Your task to perform on an android device: Show me popular videos on Youtube Image 0: 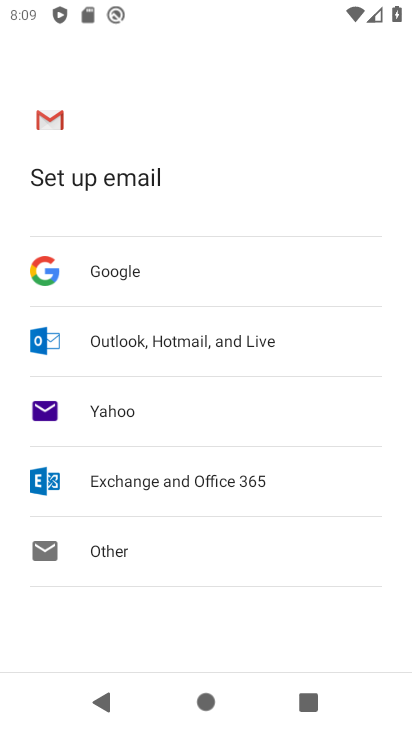
Step 0: press home button
Your task to perform on an android device: Show me popular videos on Youtube Image 1: 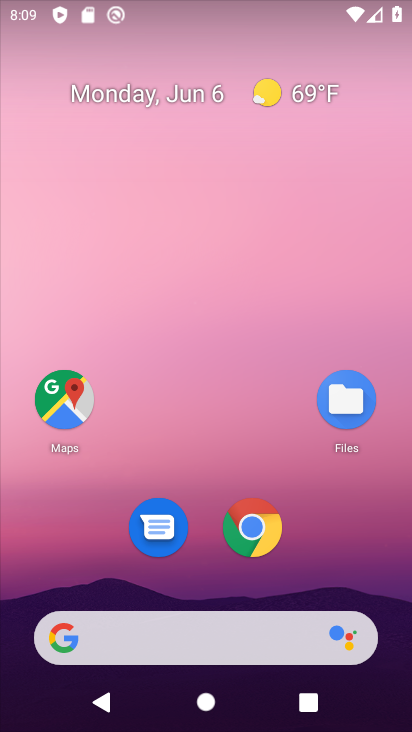
Step 1: drag from (220, 573) to (209, 26)
Your task to perform on an android device: Show me popular videos on Youtube Image 2: 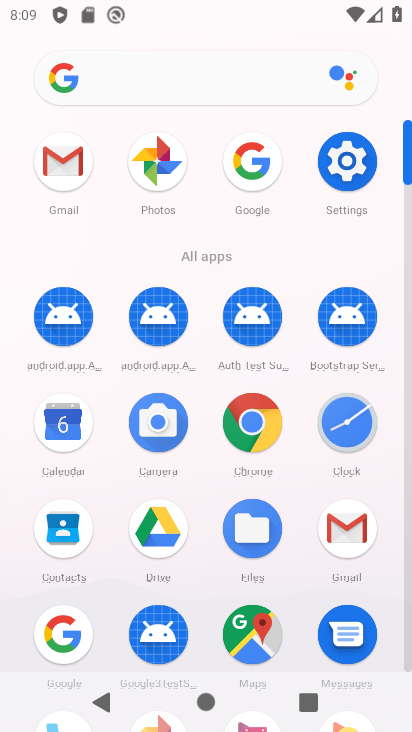
Step 2: drag from (203, 580) to (224, 104)
Your task to perform on an android device: Show me popular videos on Youtube Image 3: 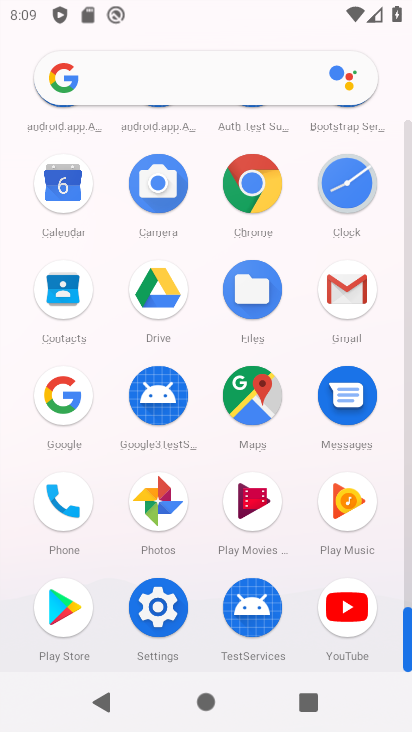
Step 3: click (346, 615)
Your task to perform on an android device: Show me popular videos on Youtube Image 4: 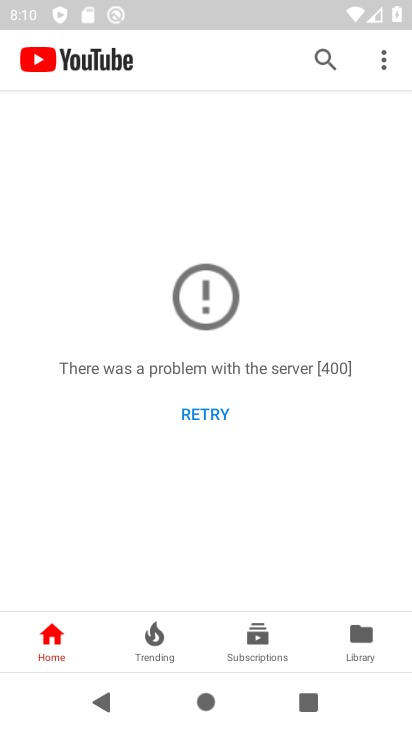
Step 4: click (64, 642)
Your task to perform on an android device: Show me popular videos on Youtube Image 5: 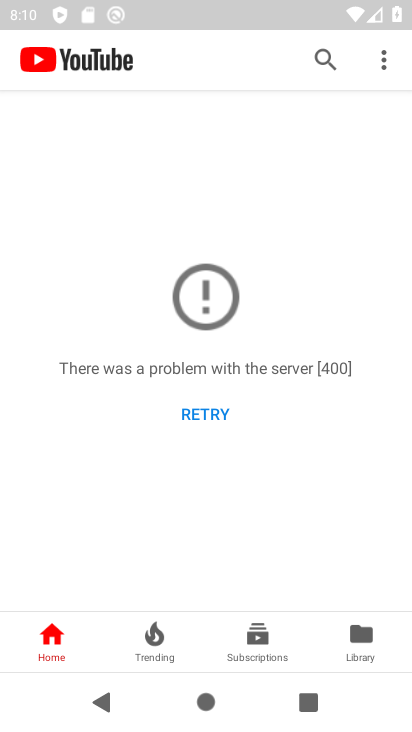
Step 5: click (213, 418)
Your task to perform on an android device: Show me popular videos on Youtube Image 6: 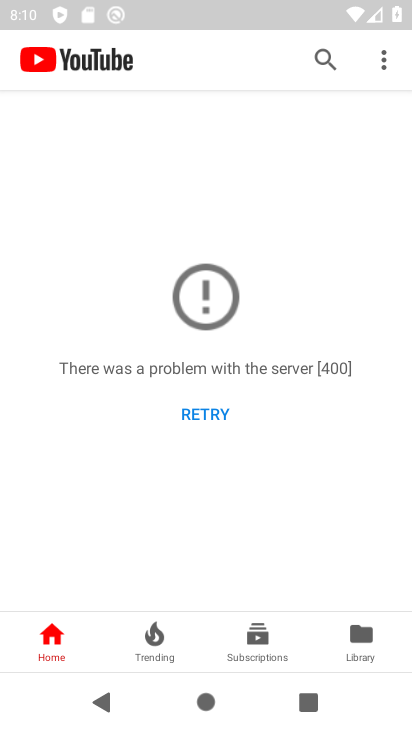
Step 6: task complete